Your task to perform on an android device: What's the weather? Image 0: 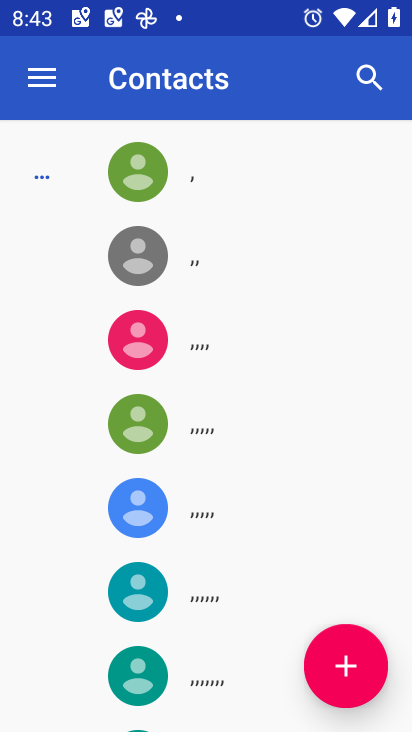
Step 0: press home button
Your task to perform on an android device: What's the weather? Image 1: 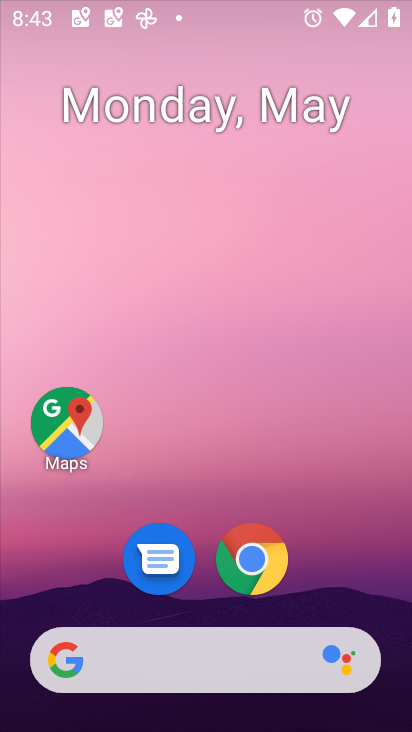
Step 1: drag from (382, 641) to (299, 79)
Your task to perform on an android device: What's the weather? Image 2: 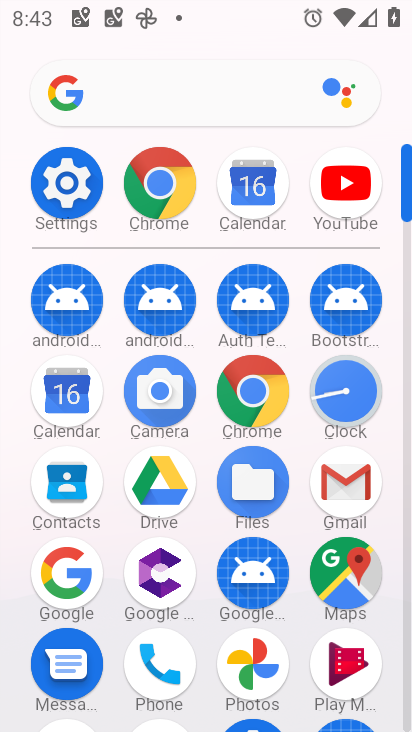
Step 2: click (70, 577)
Your task to perform on an android device: What's the weather? Image 3: 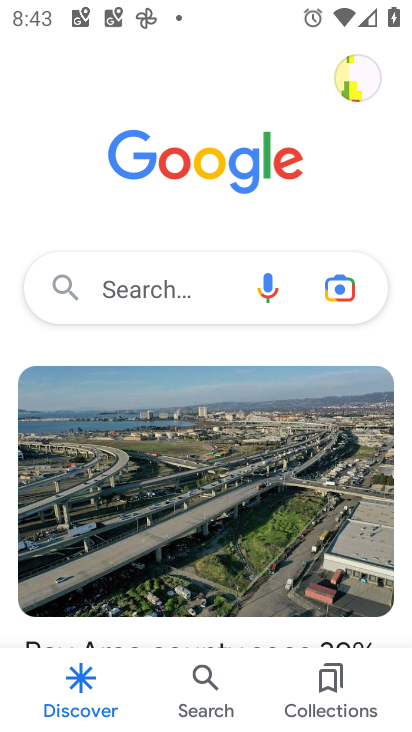
Step 3: click (109, 290)
Your task to perform on an android device: What's the weather? Image 4: 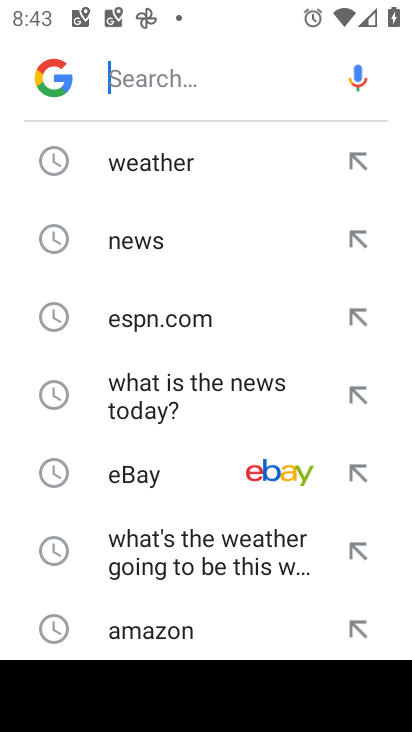
Step 4: click (179, 162)
Your task to perform on an android device: What's the weather? Image 5: 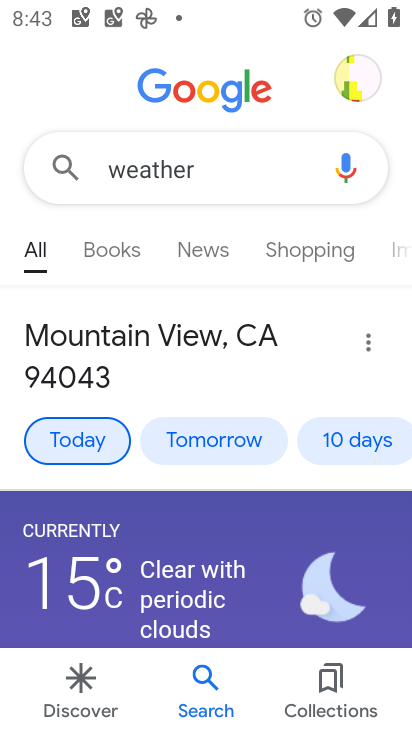
Step 5: task complete